Your task to perform on an android device: turn on notifications settings in the gmail app Image 0: 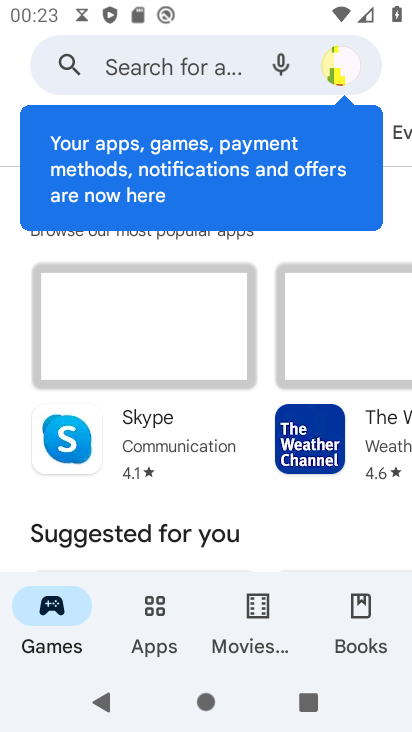
Step 0: press home button
Your task to perform on an android device: turn on notifications settings in the gmail app Image 1: 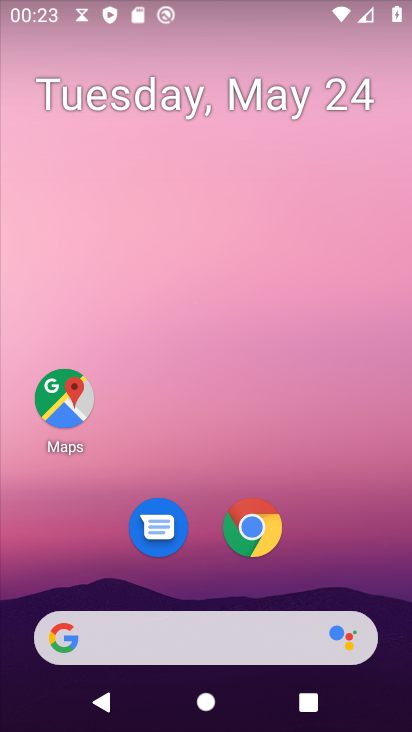
Step 1: drag from (168, 629) to (318, 171)
Your task to perform on an android device: turn on notifications settings in the gmail app Image 2: 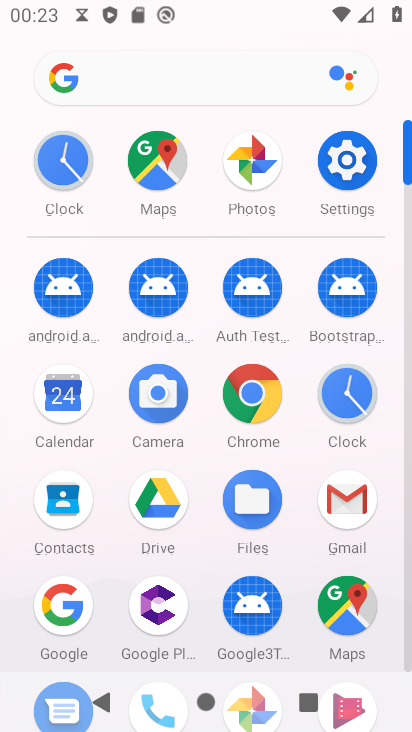
Step 2: click (333, 504)
Your task to perform on an android device: turn on notifications settings in the gmail app Image 3: 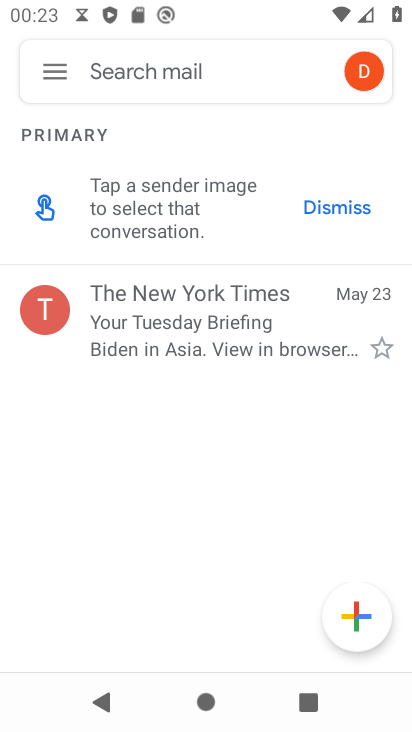
Step 3: click (47, 67)
Your task to perform on an android device: turn on notifications settings in the gmail app Image 4: 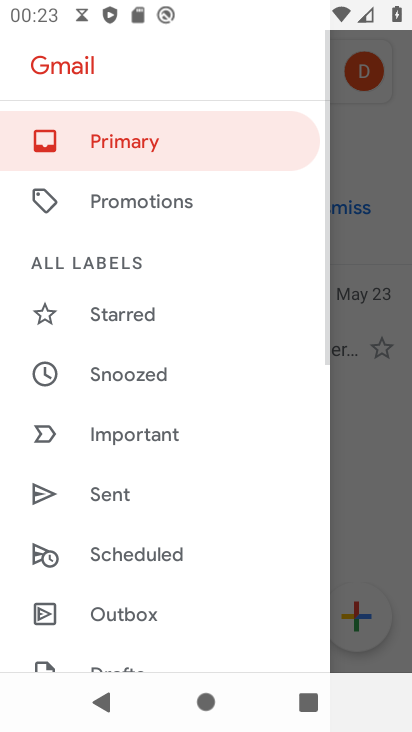
Step 4: drag from (200, 643) to (239, 5)
Your task to perform on an android device: turn on notifications settings in the gmail app Image 5: 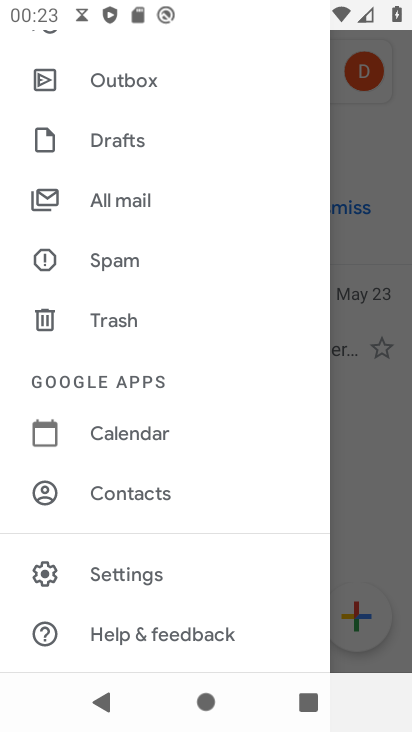
Step 5: click (130, 578)
Your task to perform on an android device: turn on notifications settings in the gmail app Image 6: 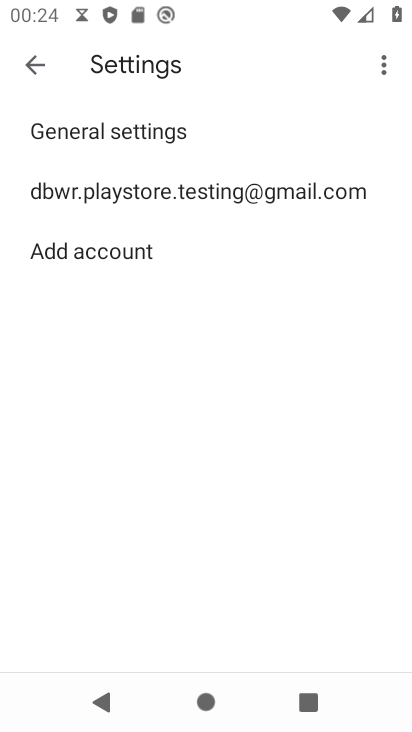
Step 6: click (227, 194)
Your task to perform on an android device: turn on notifications settings in the gmail app Image 7: 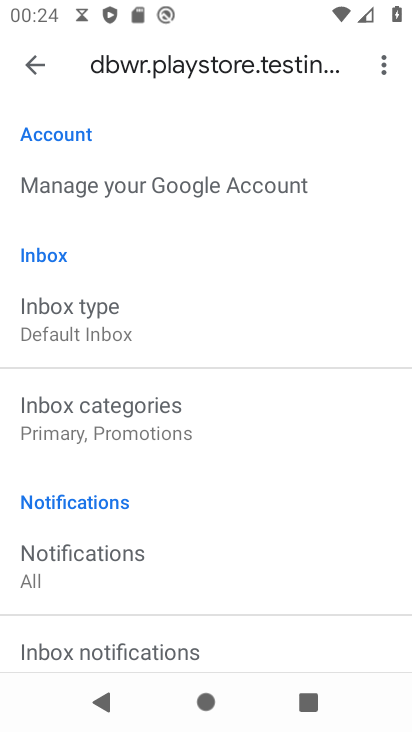
Step 7: drag from (155, 547) to (286, 239)
Your task to perform on an android device: turn on notifications settings in the gmail app Image 8: 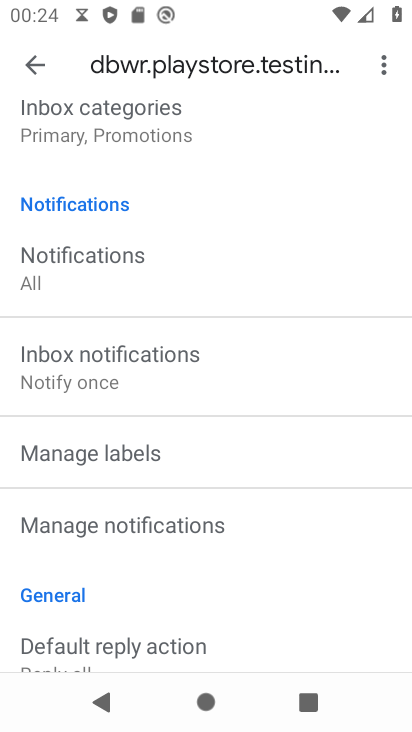
Step 8: click (110, 291)
Your task to perform on an android device: turn on notifications settings in the gmail app Image 9: 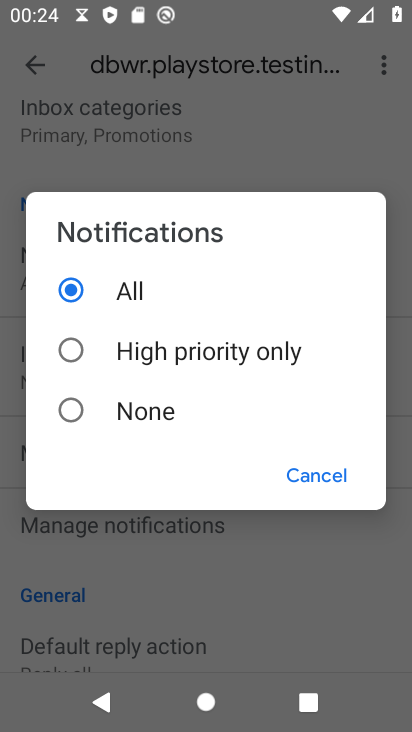
Step 9: task complete